Your task to perform on an android device: turn off smart reply in the gmail app Image 0: 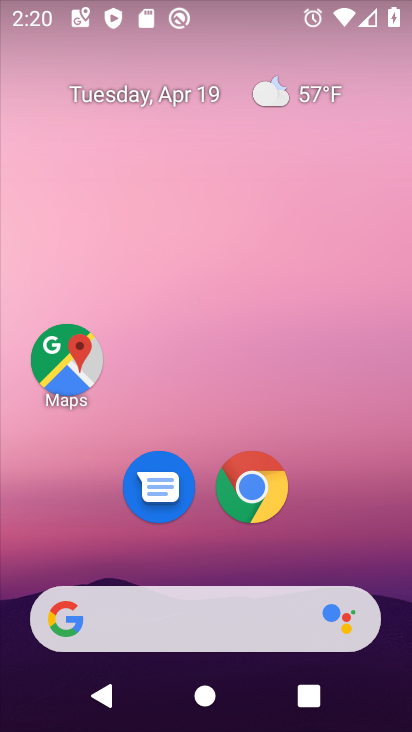
Step 0: drag from (138, 711) to (223, 94)
Your task to perform on an android device: turn off smart reply in the gmail app Image 1: 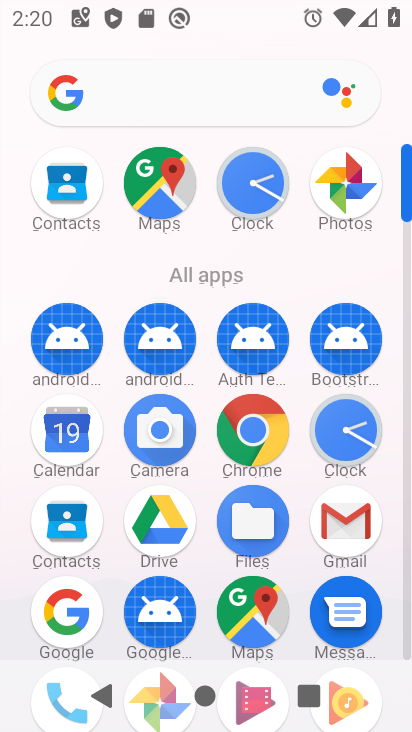
Step 1: click (359, 505)
Your task to perform on an android device: turn off smart reply in the gmail app Image 2: 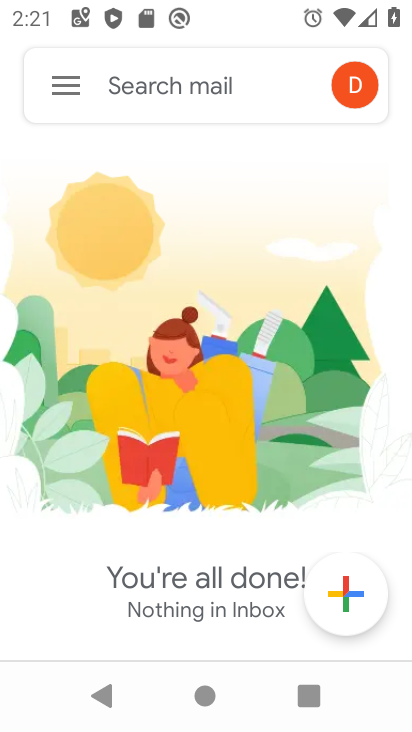
Step 2: click (70, 76)
Your task to perform on an android device: turn off smart reply in the gmail app Image 3: 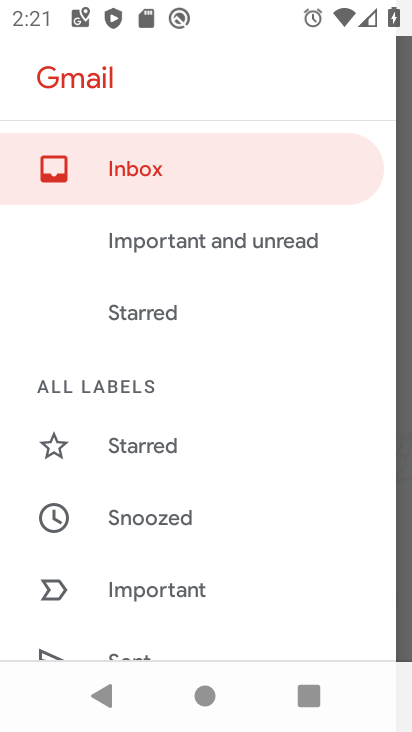
Step 3: drag from (159, 575) to (167, 99)
Your task to perform on an android device: turn off smart reply in the gmail app Image 4: 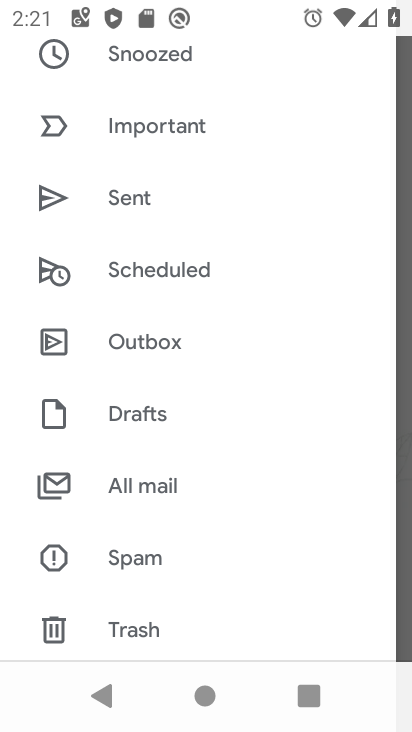
Step 4: drag from (85, 637) to (133, 130)
Your task to perform on an android device: turn off smart reply in the gmail app Image 5: 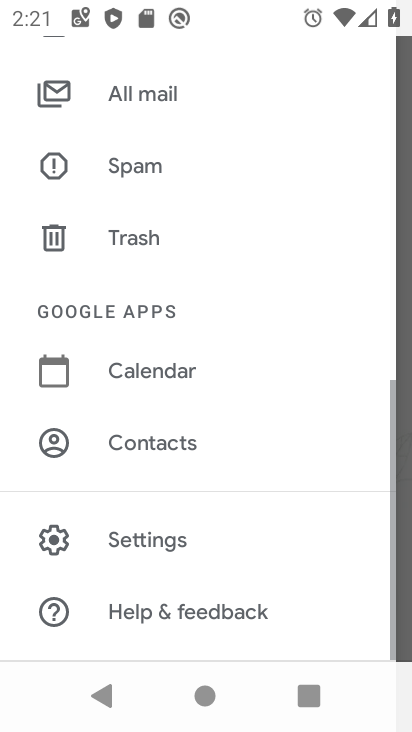
Step 5: click (272, 531)
Your task to perform on an android device: turn off smart reply in the gmail app Image 6: 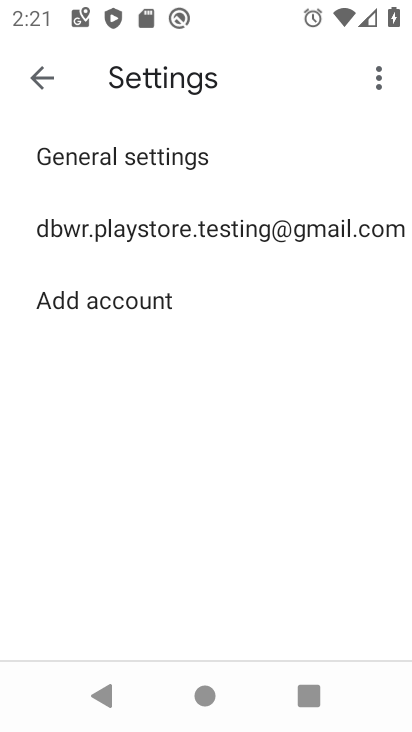
Step 6: click (195, 216)
Your task to perform on an android device: turn off smart reply in the gmail app Image 7: 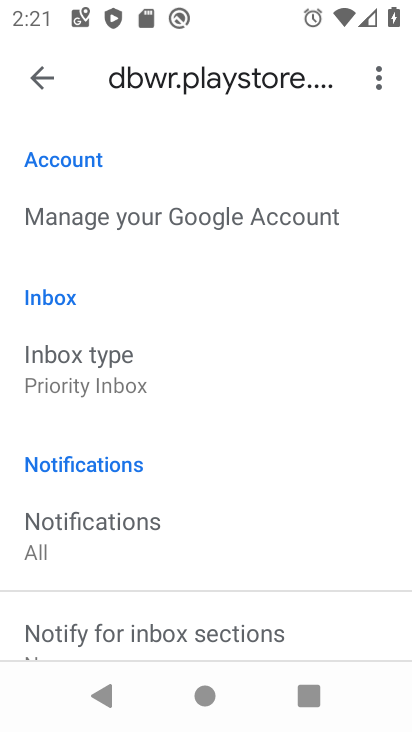
Step 7: drag from (156, 603) to (187, 101)
Your task to perform on an android device: turn off smart reply in the gmail app Image 8: 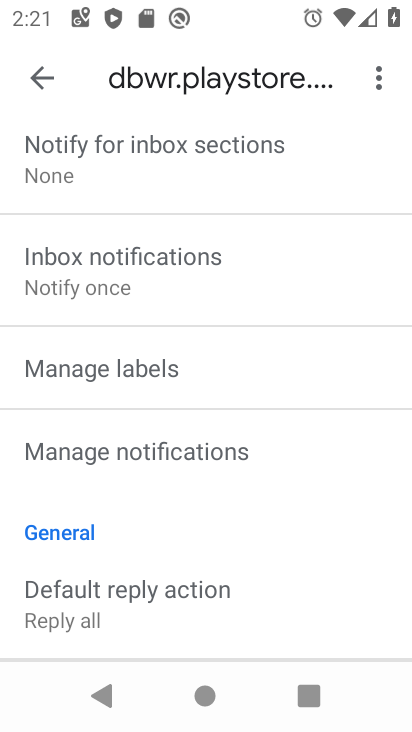
Step 8: drag from (226, 562) to (224, 166)
Your task to perform on an android device: turn off smart reply in the gmail app Image 9: 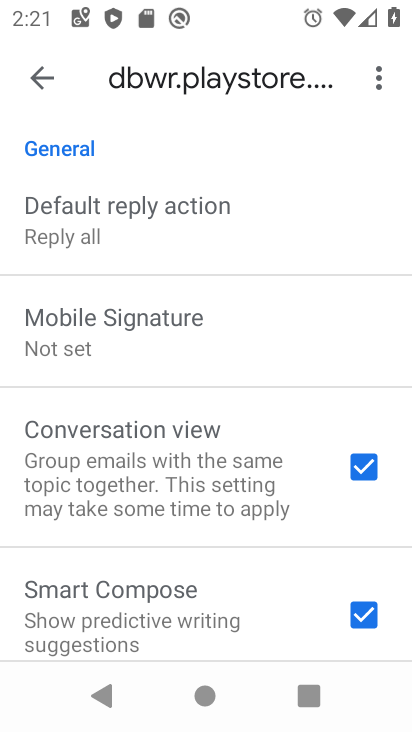
Step 9: drag from (127, 585) to (140, 182)
Your task to perform on an android device: turn off smart reply in the gmail app Image 10: 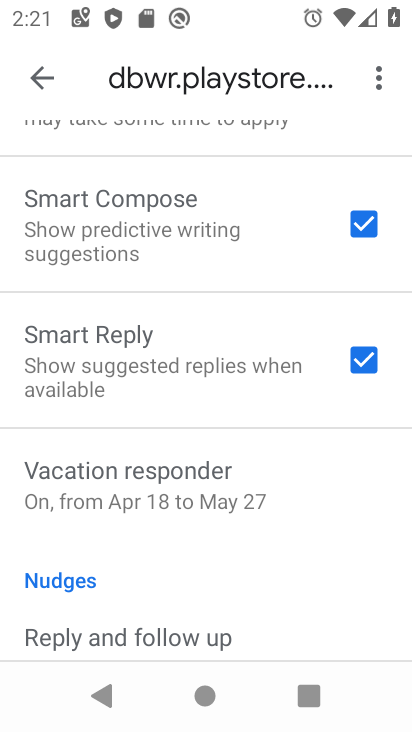
Step 10: click (371, 361)
Your task to perform on an android device: turn off smart reply in the gmail app Image 11: 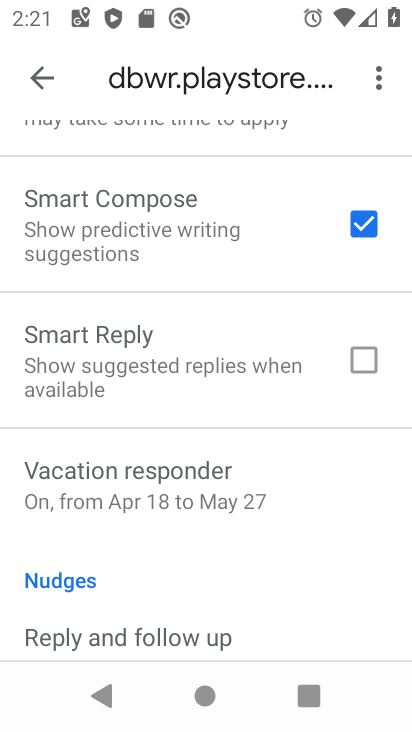
Step 11: task complete